Your task to perform on an android device: When is my next meeting? Image 0: 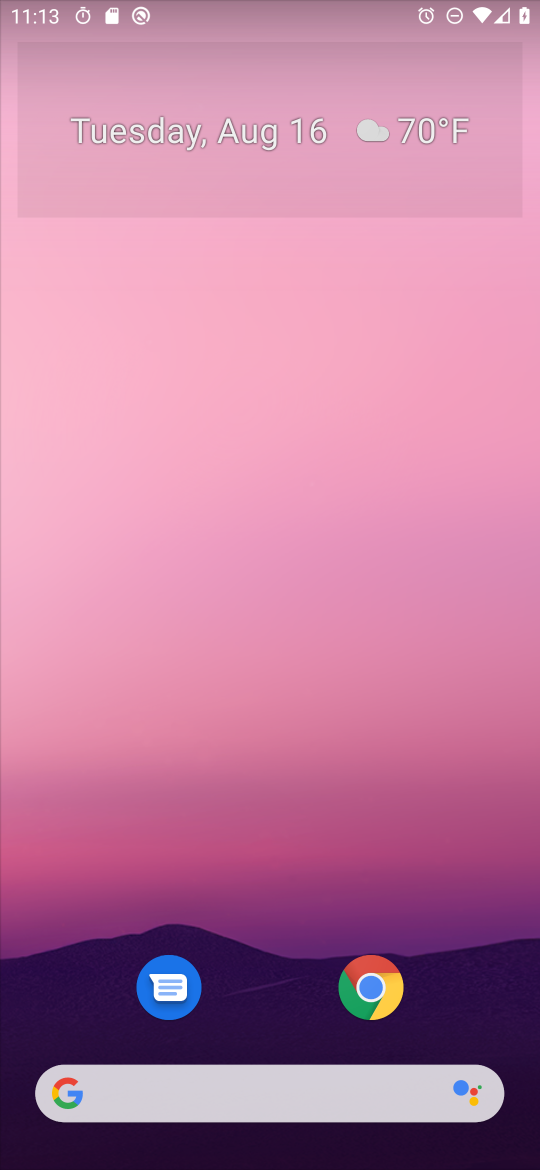
Step 0: drag from (25, 1137) to (360, 345)
Your task to perform on an android device: When is my next meeting? Image 1: 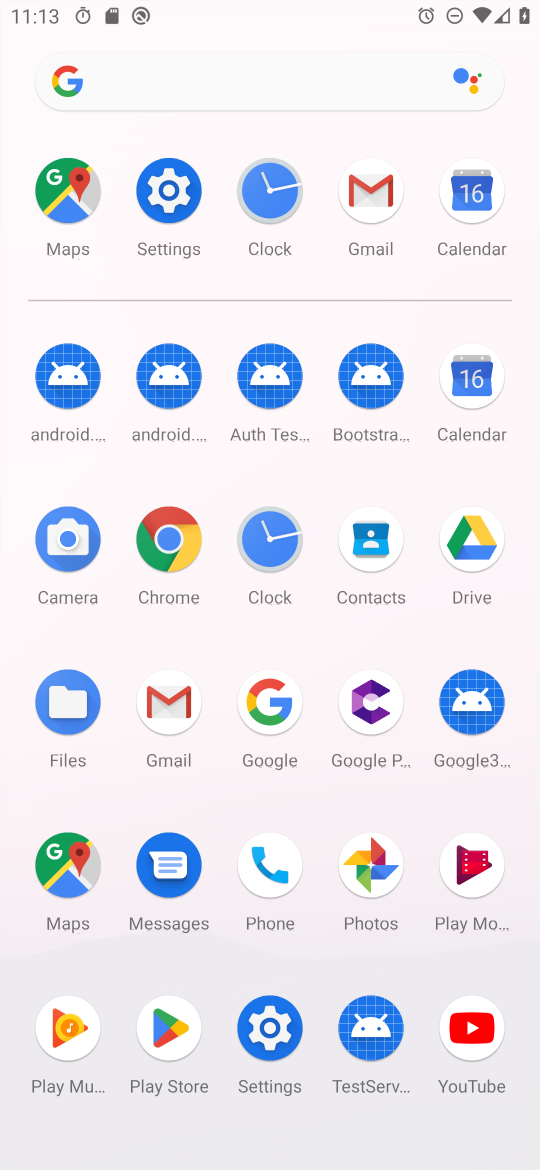
Step 1: click (463, 223)
Your task to perform on an android device: When is my next meeting? Image 2: 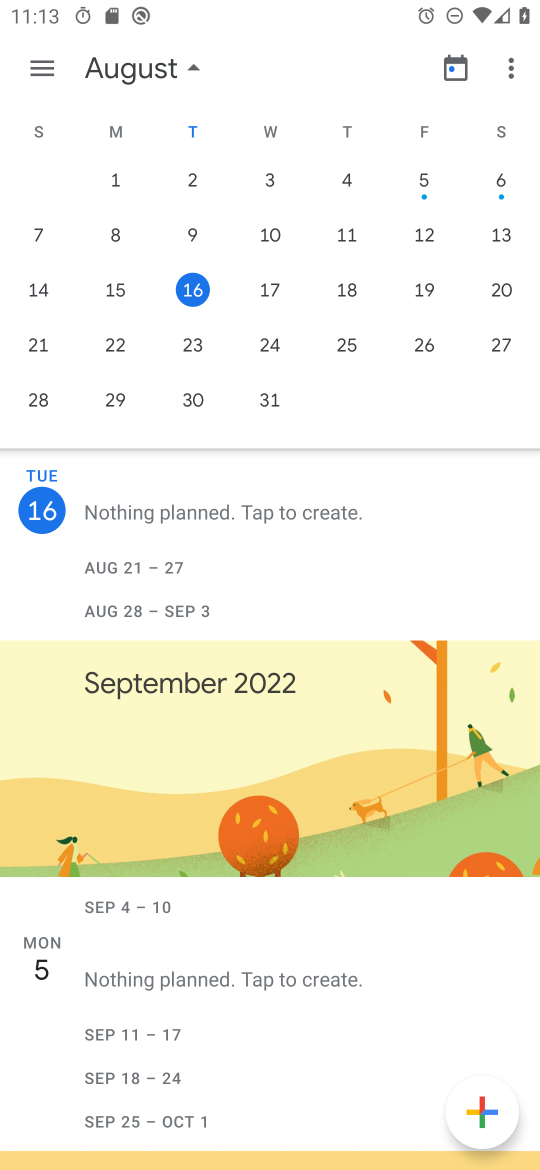
Step 2: task complete